Your task to perform on an android device: Go to calendar. Show me events next week Image 0: 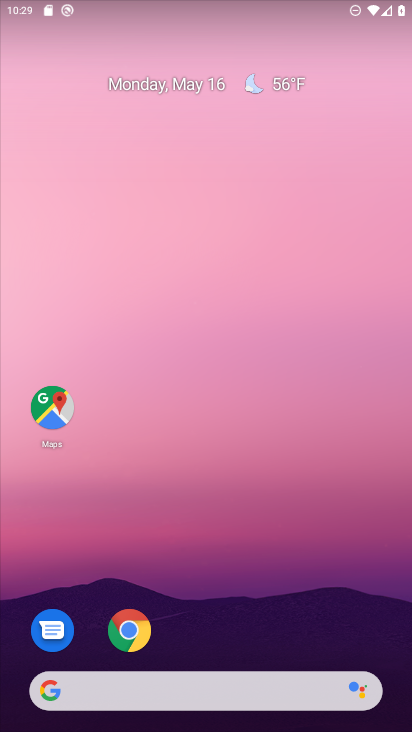
Step 0: drag from (231, 647) to (228, 0)
Your task to perform on an android device: Go to calendar. Show me events next week Image 1: 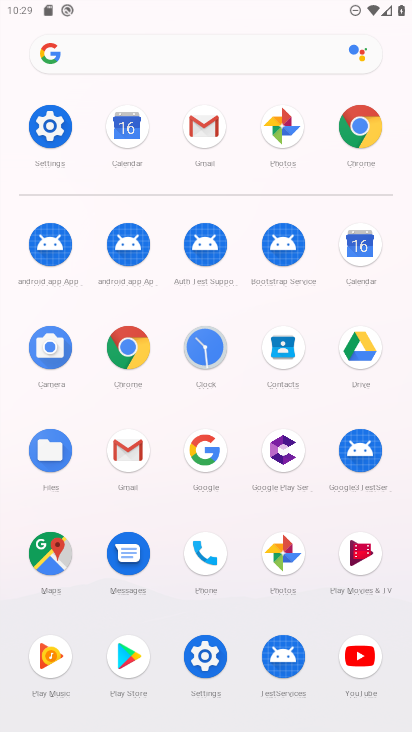
Step 1: click (368, 241)
Your task to perform on an android device: Go to calendar. Show me events next week Image 2: 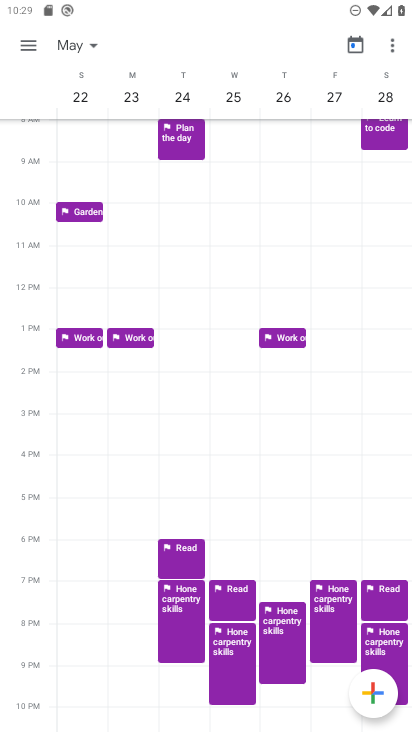
Step 2: task complete